Your task to perform on an android device: Turn off the flashlight Image 0: 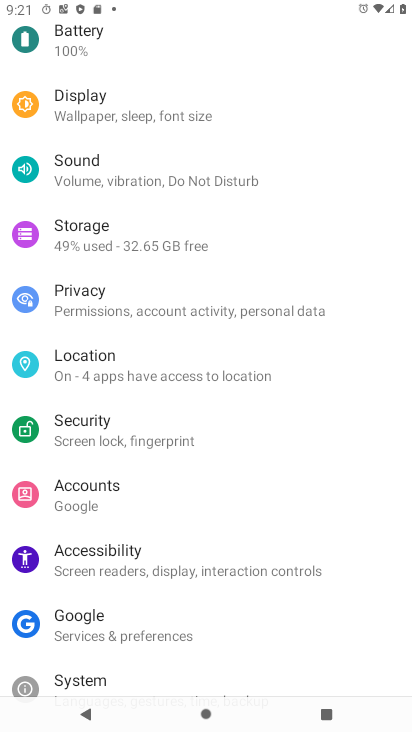
Step 0: press home button
Your task to perform on an android device: Turn off the flashlight Image 1: 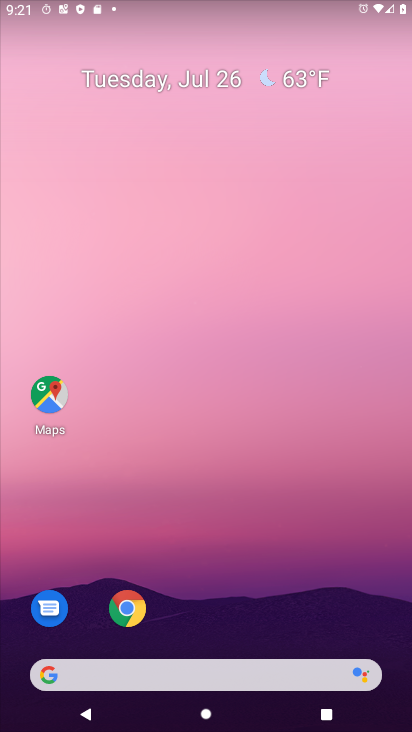
Step 1: drag from (333, 7) to (272, 488)
Your task to perform on an android device: Turn off the flashlight Image 2: 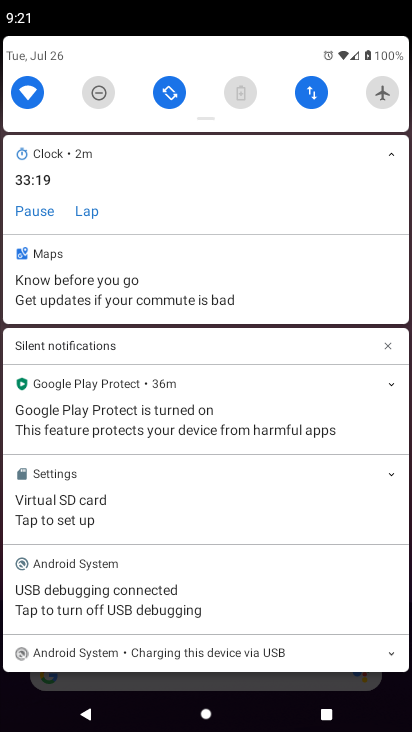
Step 2: drag from (201, 111) to (209, 533)
Your task to perform on an android device: Turn off the flashlight Image 3: 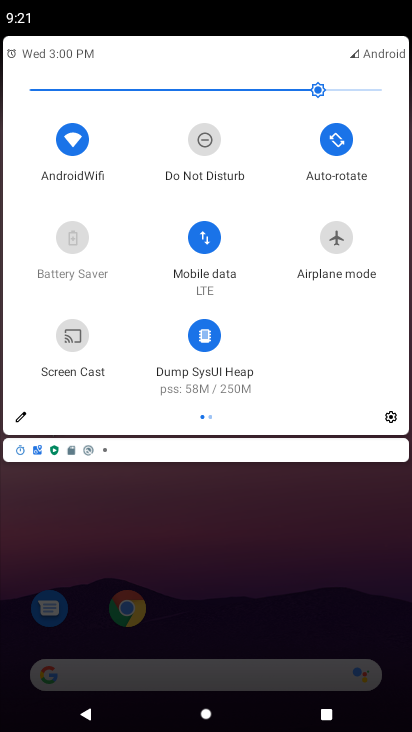
Step 3: click (23, 417)
Your task to perform on an android device: Turn off the flashlight Image 4: 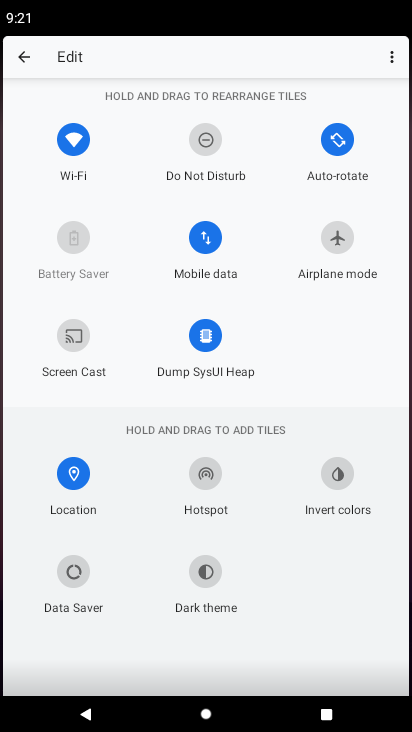
Step 4: task complete